Your task to perform on an android device: What's the news in French Guiana? Image 0: 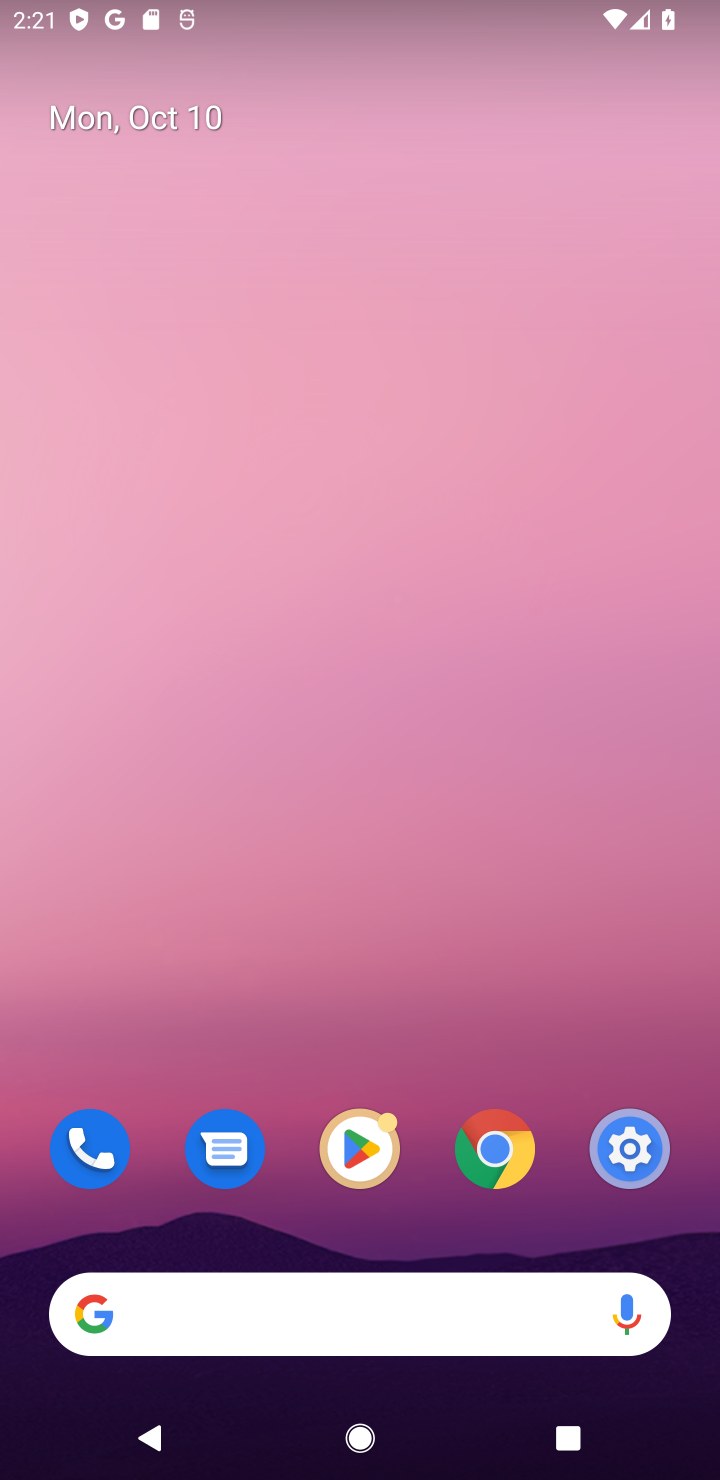
Step 0: click (413, 1337)
Your task to perform on an android device: What's the news in French Guiana? Image 1: 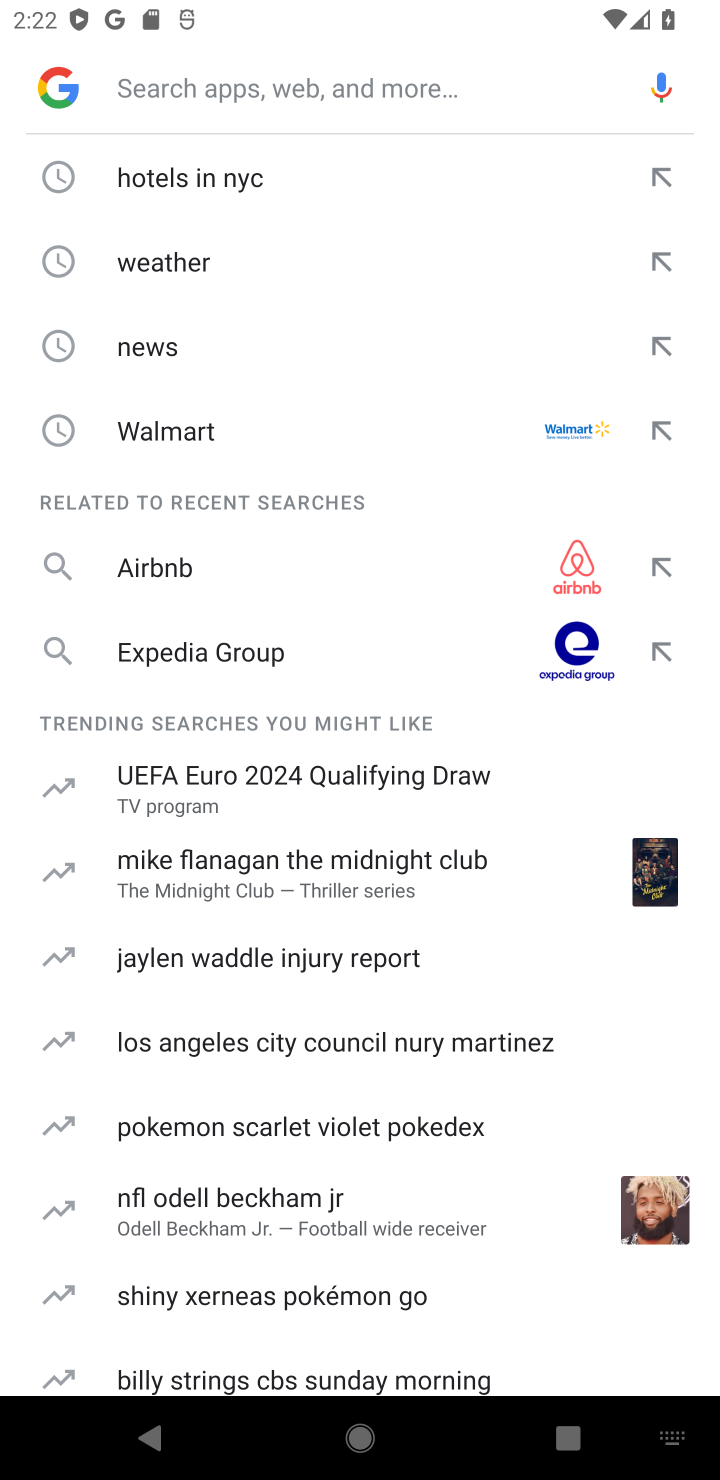
Step 1: type "news in French Guiana"
Your task to perform on an android device: What's the news in French Guiana? Image 2: 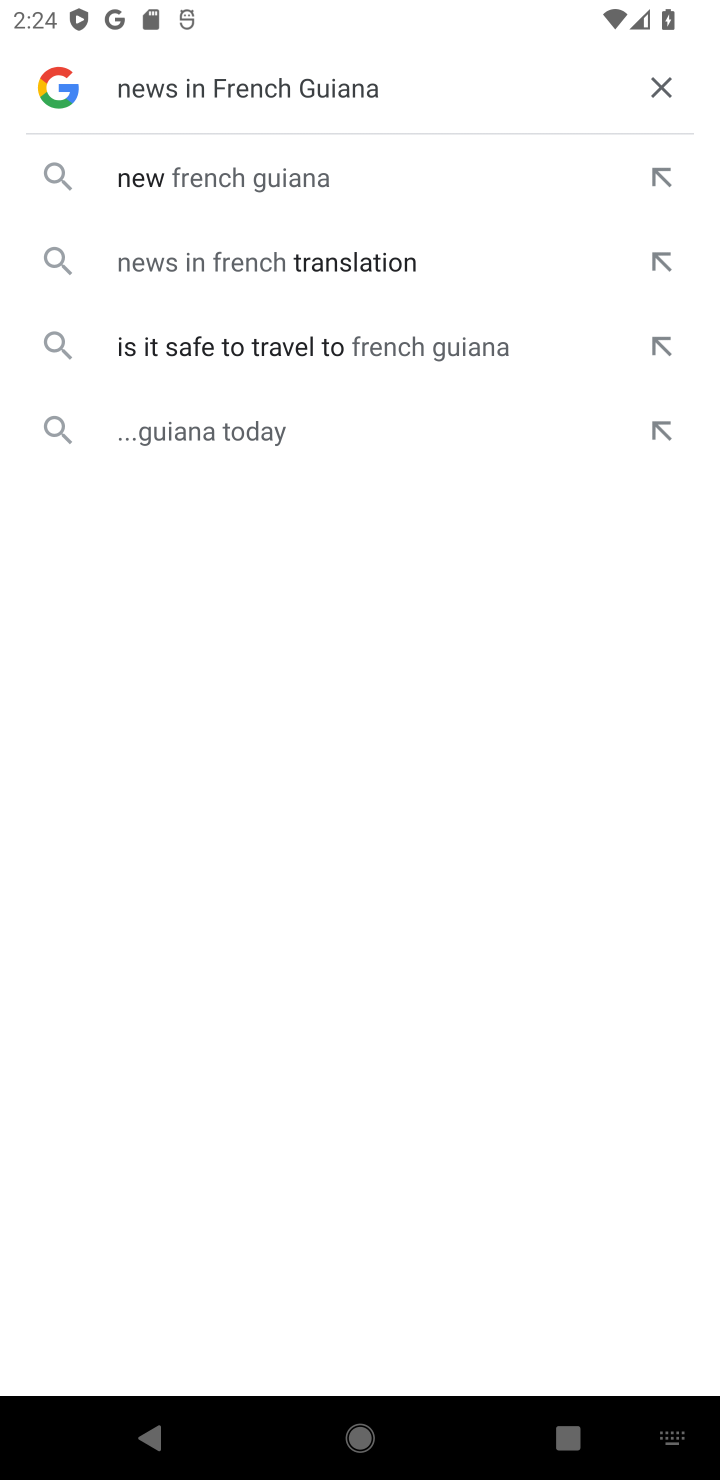
Step 2: click (271, 214)
Your task to perform on an android device: What's the news in French Guiana? Image 3: 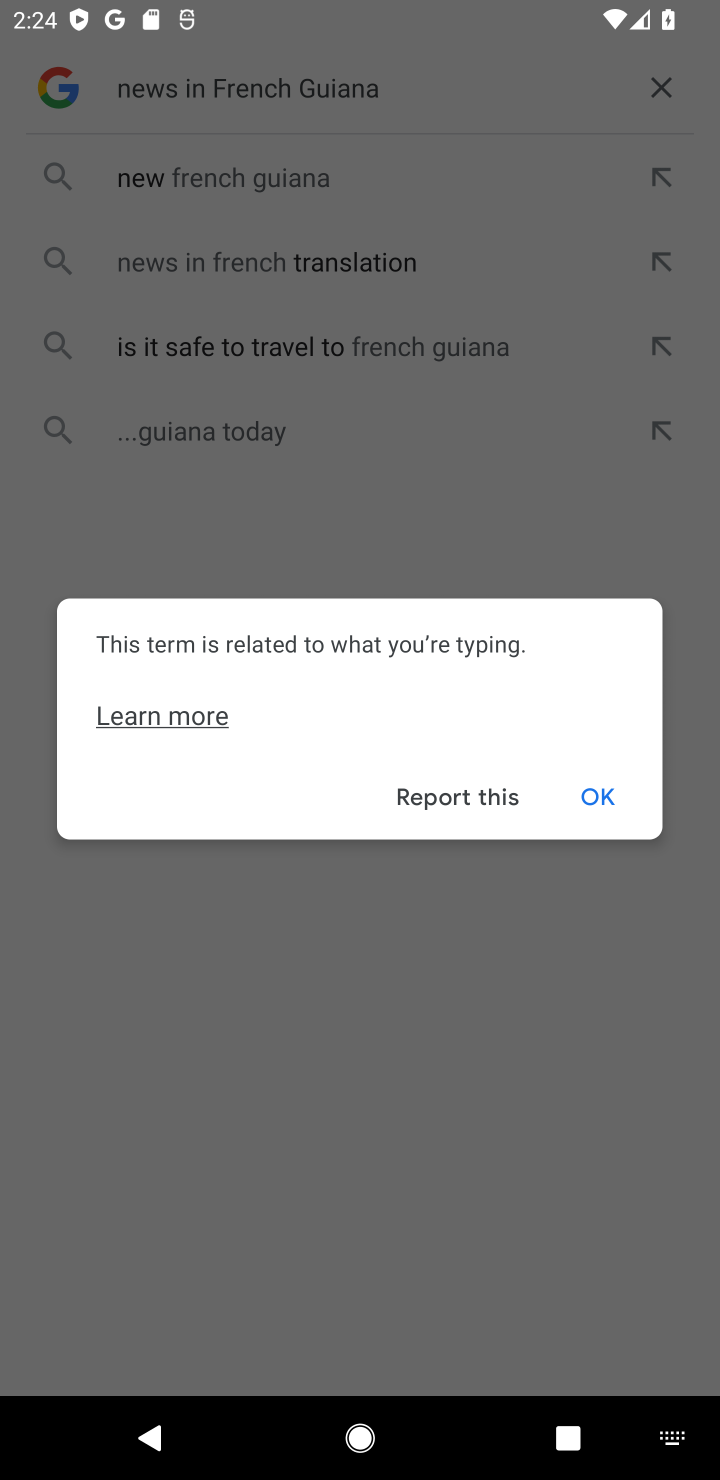
Step 3: task complete